Your task to perform on an android device: turn off improve location accuracy Image 0: 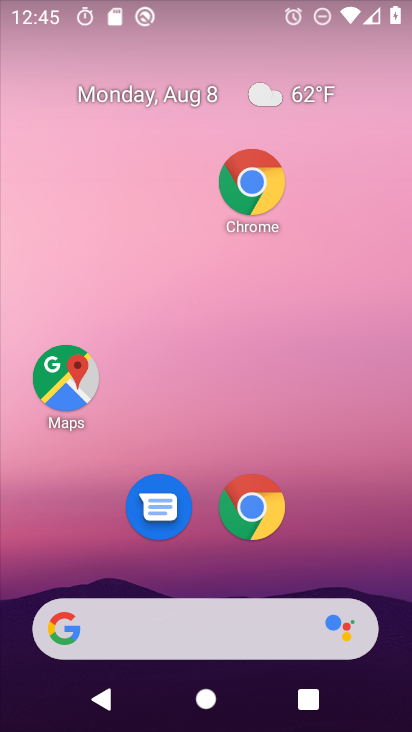
Step 0: drag from (347, 534) to (368, 18)
Your task to perform on an android device: turn off improve location accuracy Image 1: 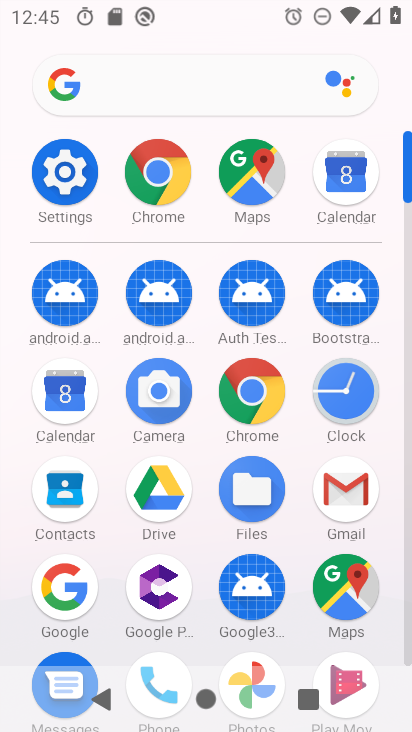
Step 1: drag from (361, 60) to (316, 28)
Your task to perform on an android device: turn off improve location accuracy Image 2: 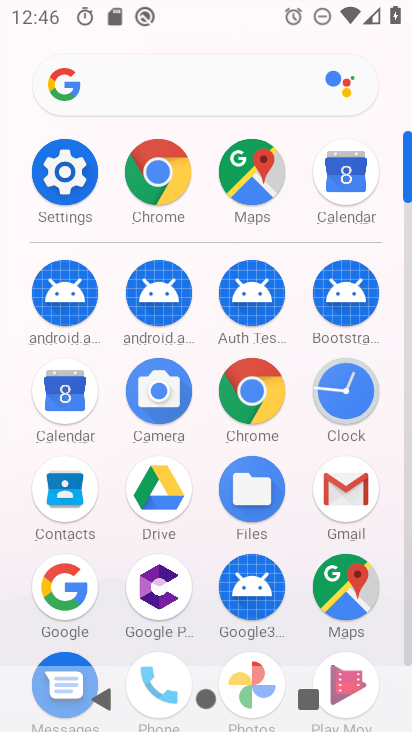
Step 2: click (53, 157)
Your task to perform on an android device: turn off improve location accuracy Image 3: 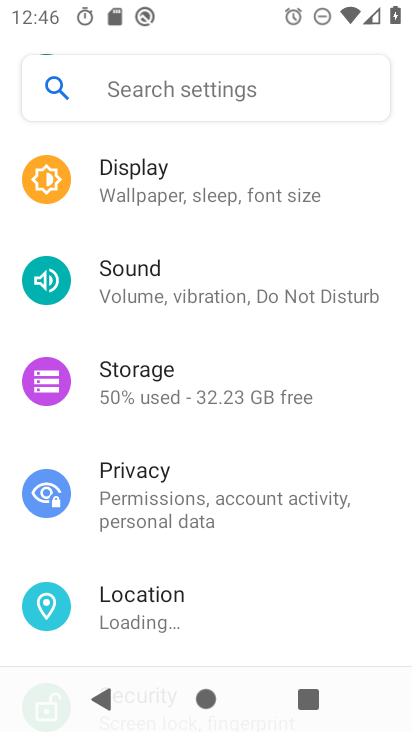
Step 3: drag from (293, 589) to (274, 113)
Your task to perform on an android device: turn off improve location accuracy Image 4: 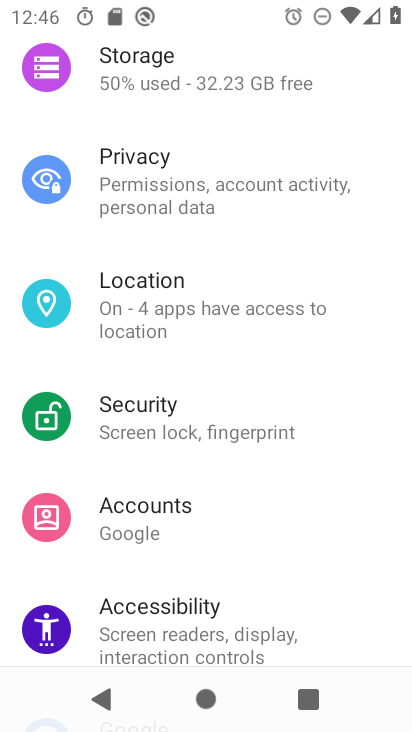
Step 4: click (197, 298)
Your task to perform on an android device: turn off improve location accuracy Image 5: 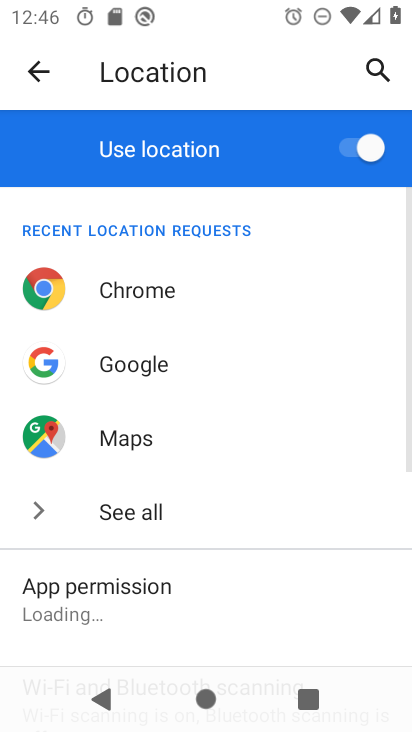
Step 5: drag from (245, 612) to (294, 208)
Your task to perform on an android device: turn off improve location accuracy Image 6: 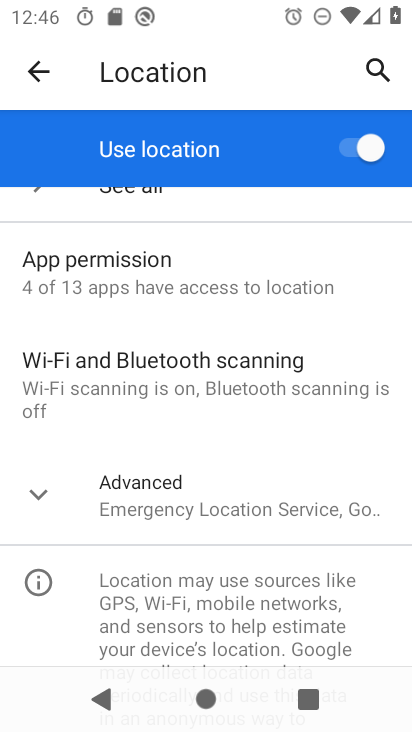
Step 6: click (190, 508)
Your task to perform on an android device: turn off improve location accuracy Image 7: 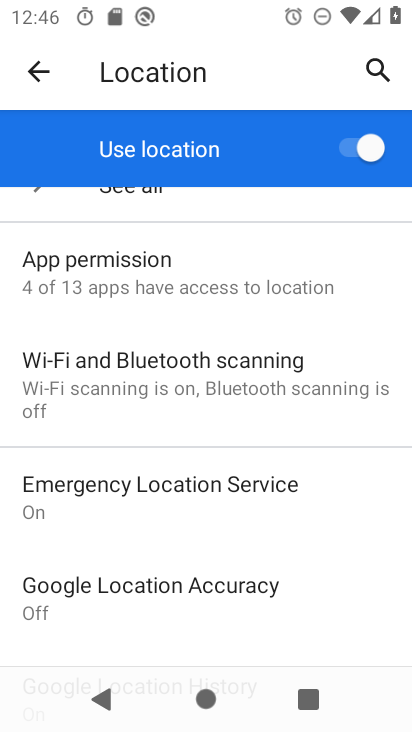
Step 7: click (253, 596)
Your task to perform on an android device: turn off improve location accuracy Image 8: 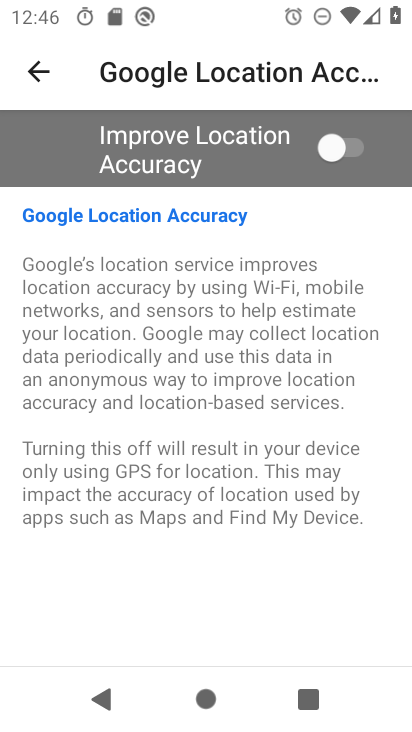
Step 8: task complete